Your task to perform on an android device: Find coffee shops on Maps Image 0: 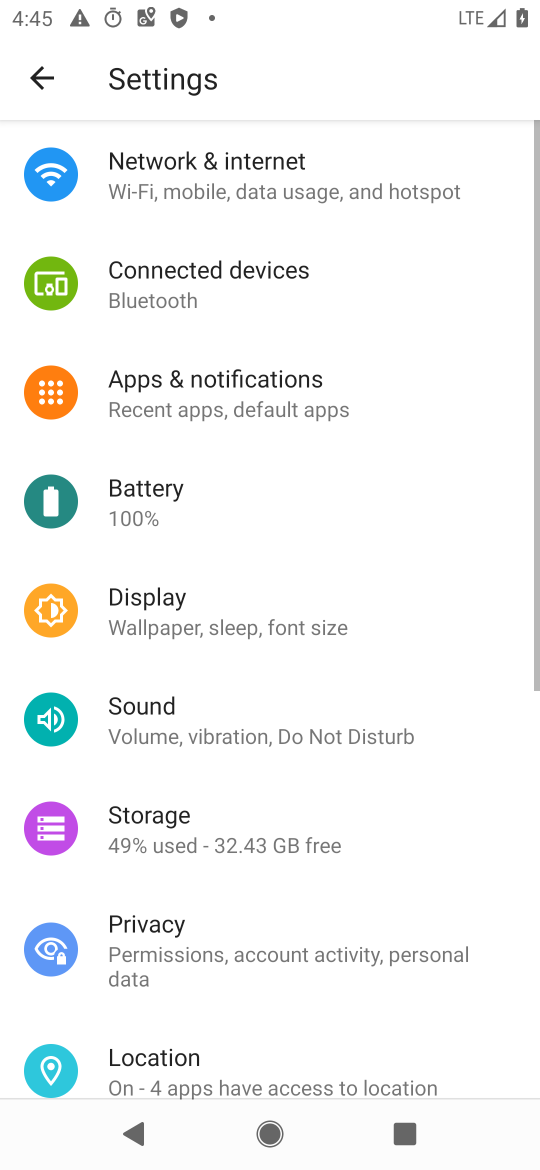
Step 0: press home button
Your task to perform on an android device: Find coffee shops on Maps Image 1: 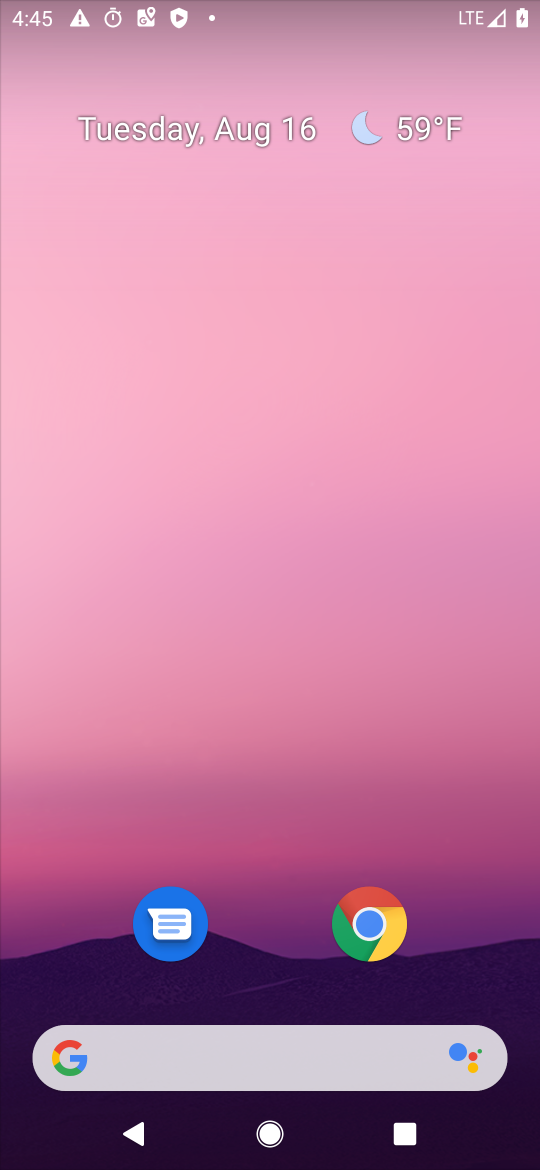
Step 1: drag from (308, 883) to (217, 225)
Your task to perform on an android device: Find coffee shops on Maps Image 2: 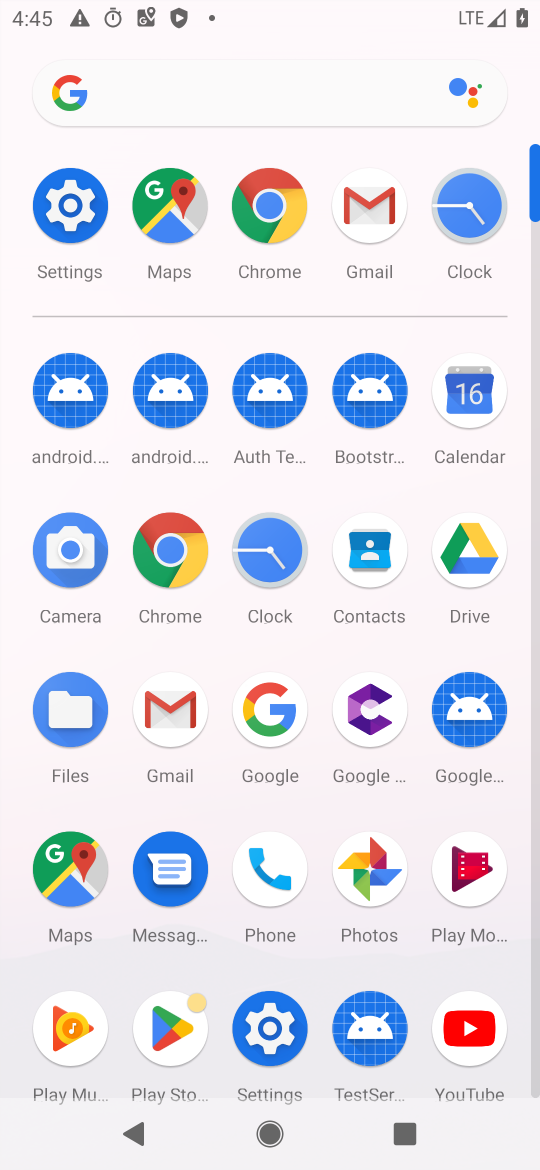
Step 2: click (175, 214)
Your task to perform on an android device: Find coffee shops on Maps Image 3: 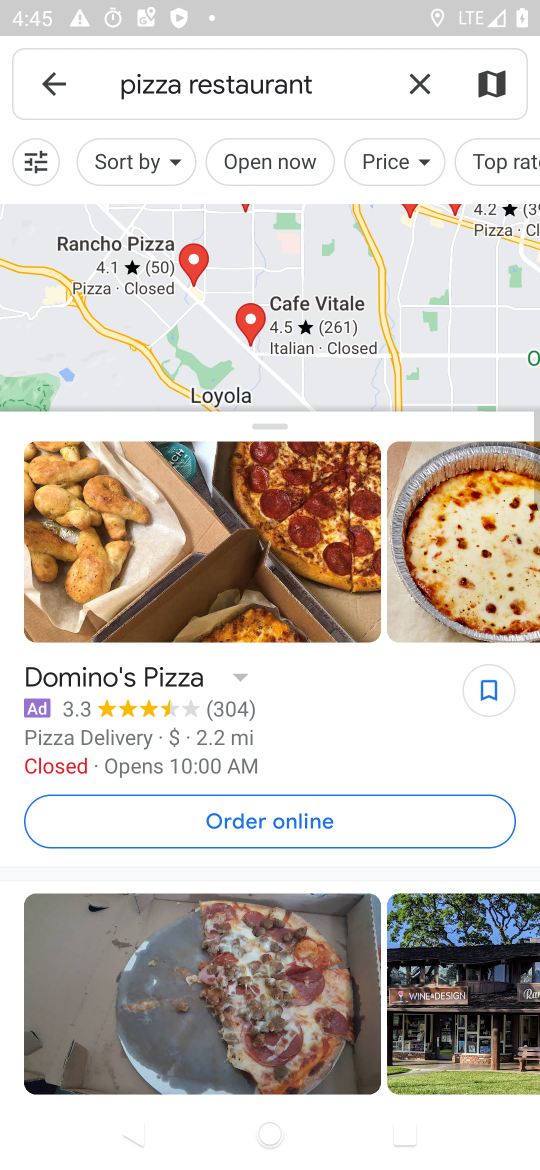
Step 3: click (413, 73)
Your task to perform on an android device: Find coffee shops on Maps Image 4: 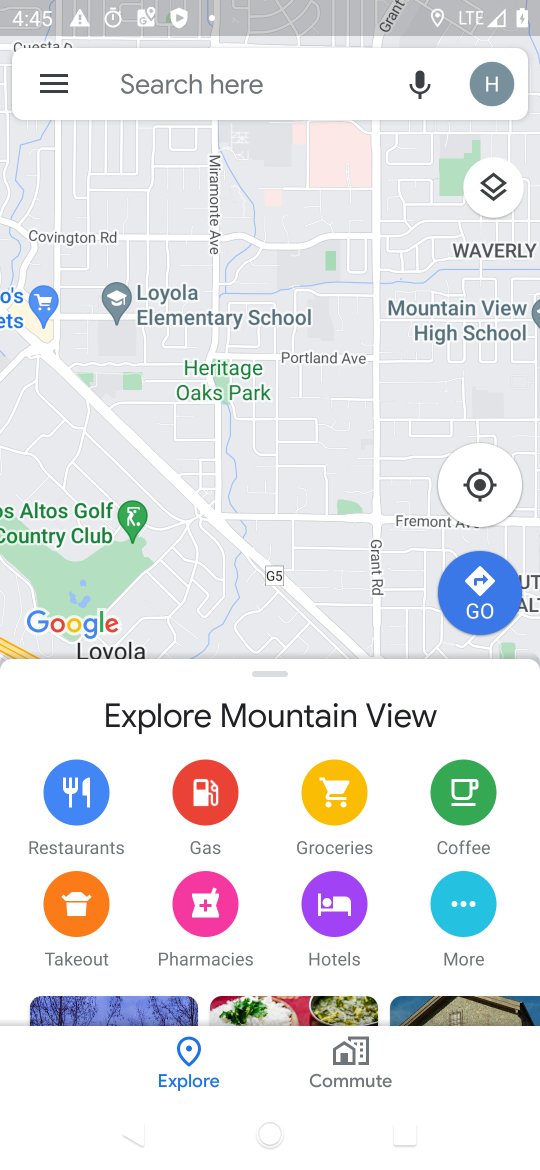
Step 4: click (457, 799)
Your task to perform on an android device: Find coffee shops on Maps Image 5: 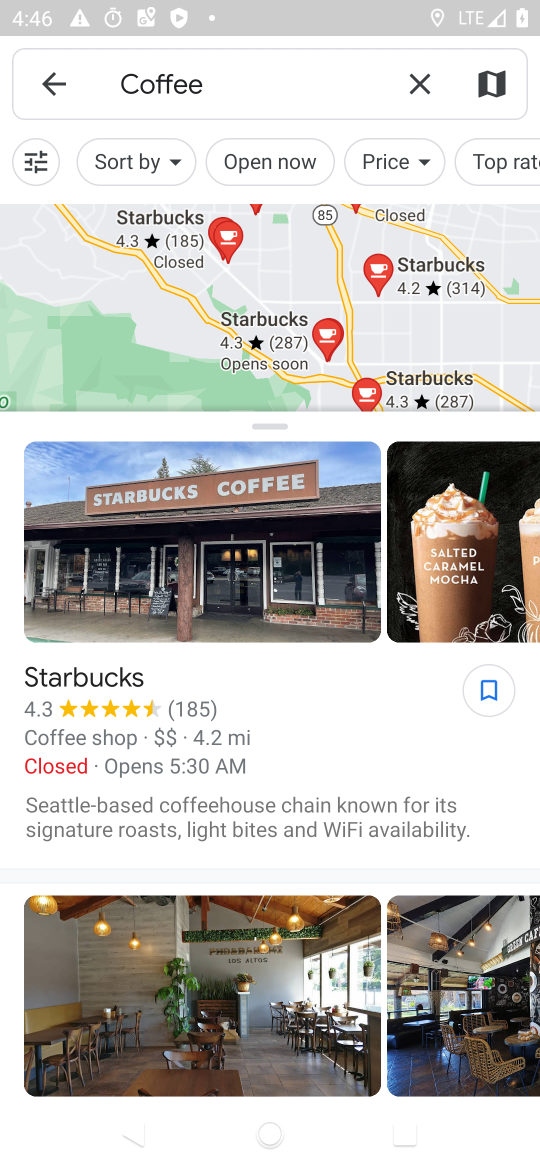
Step 5: task complete